Your task to perform on an android device: Open calendar and show me the second week of next month Image 0: 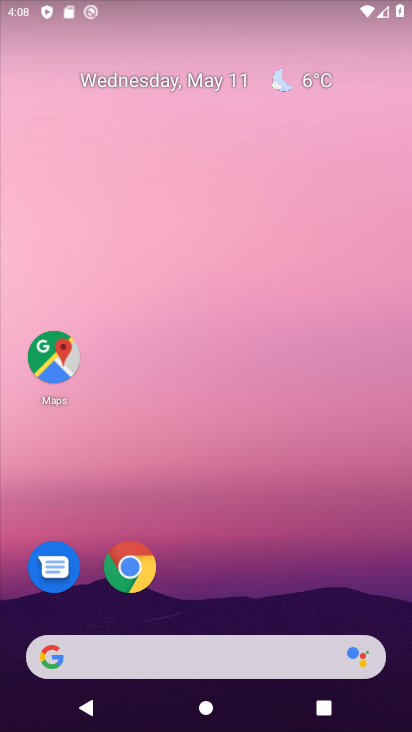
Step 0: drag from (233, 615) to (327, 134)
Your task to perform on an android device: Open calendar and show me the second week of next month Image 1: 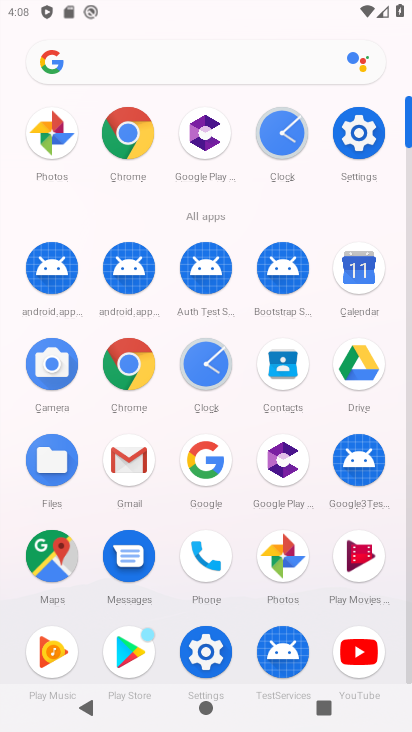
Step 1: click (351, 267)
Your task to perform on an android device: Open calendar and show me the second week of next month Image 2: 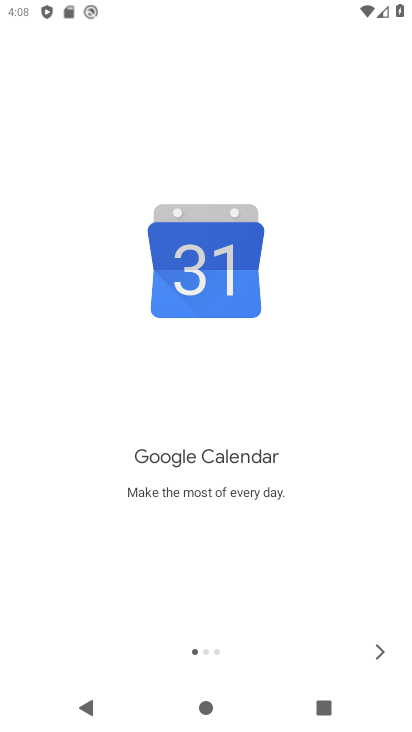
Step 2: click (380, 653)
Your task to perform on an android device: Open calendar and show me the second week of next month Image 3: 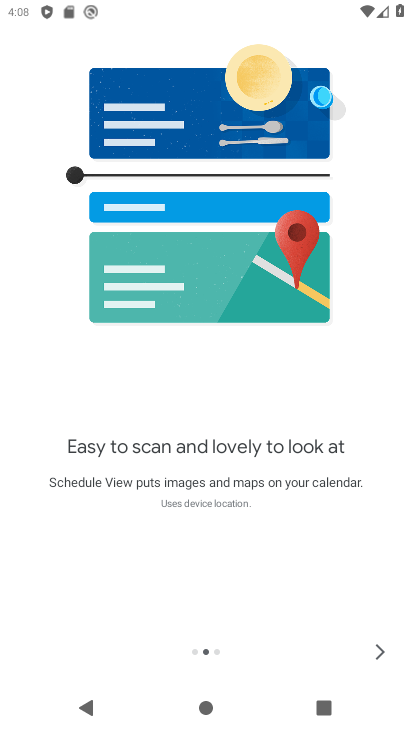
Step 3: click (380, 653)
Your task to perform on an android device: Open calendar and show me the second week of next month Image 4: 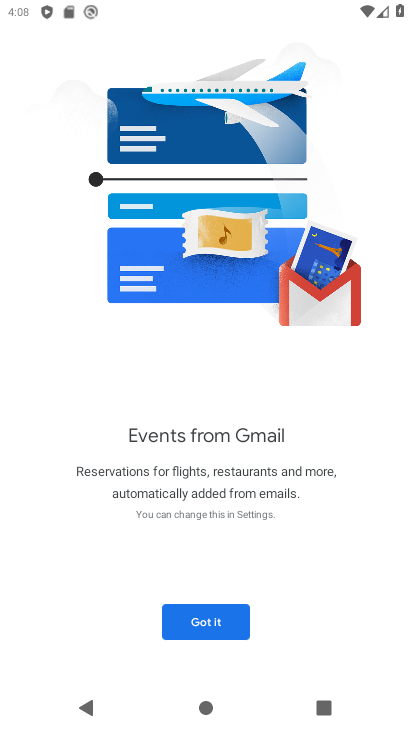
Step 4: click (197, 629)
Your task to perform on an android device: Open calendar and show me the second week of next month Image 5: 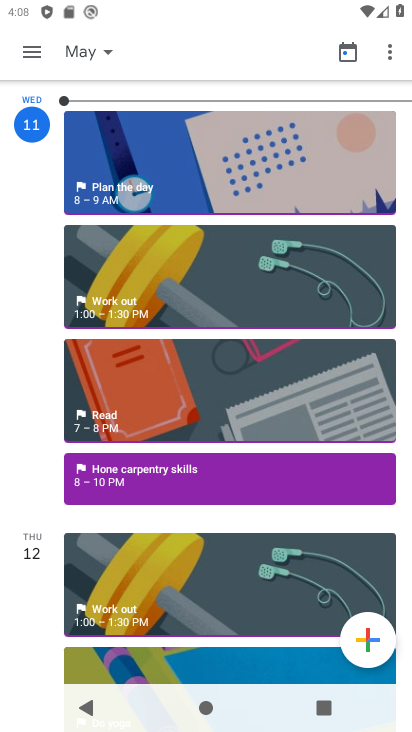
Step 5: click (80, 51)
Your task to perform on an android device: Open calendar and show me the second week of next month Image 6: 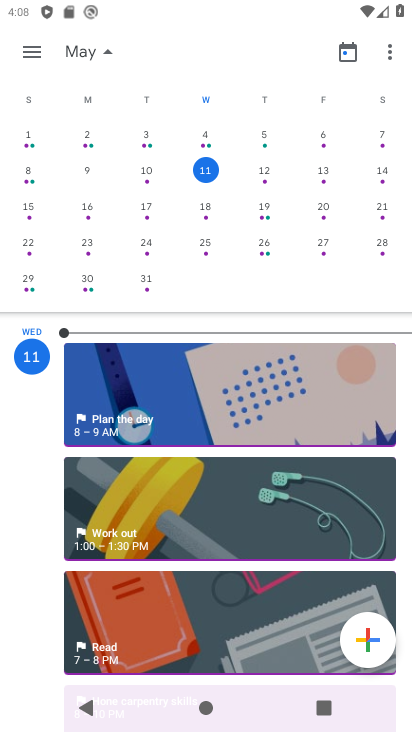
Step 6: drag from (376, 291) to (46, 219)
Your task to perform on an android device: Open calendar and show me the second week of next month Image 7: 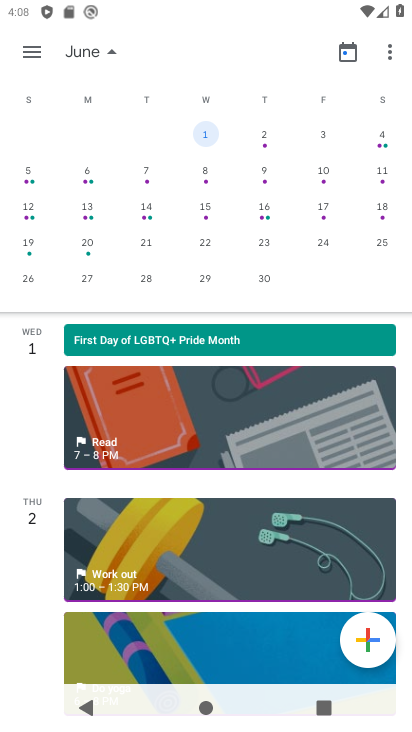
Step 7: click (29, 211)
Your task to perform on an android device: Open calendar and show me the second week of next month Image 8: 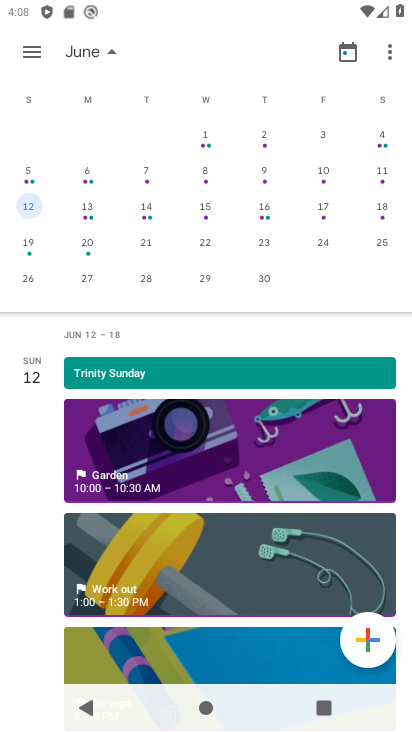
Step 8: click (37, 50)
Your task to perform on an android device: Open calendar and show me the second week of next month Image 9: 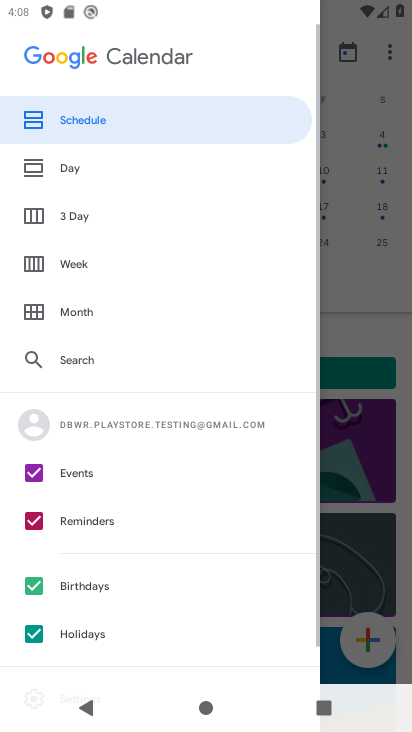
Step 9: click (94, 269)
Your task to perform on an android device: Open calendar and show me the second week of next month Image 10: 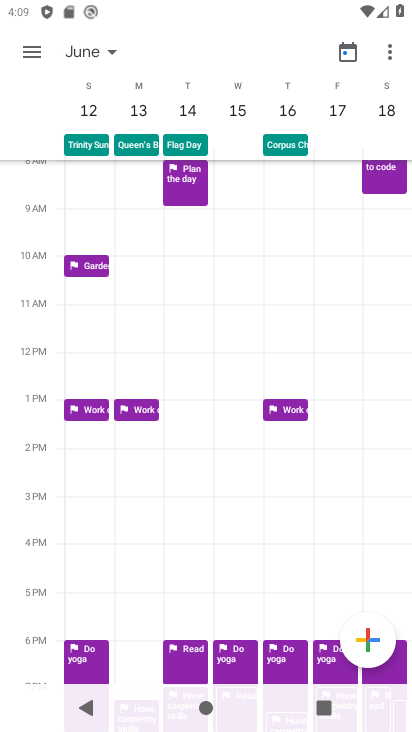
Step 10: task complete